Your task to perform on an android device: Go to Maps Image 0: 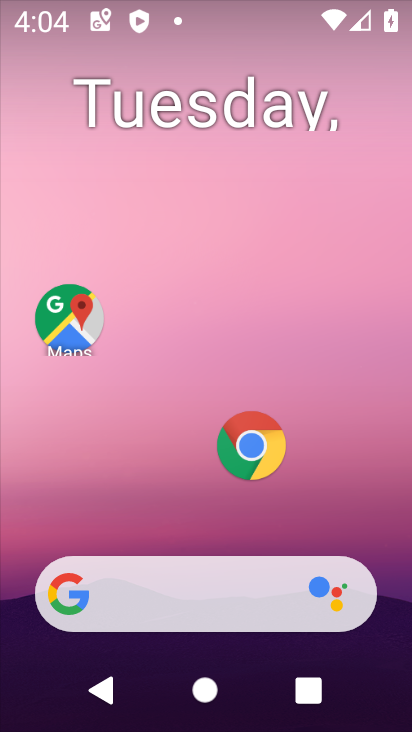
Step 0: click (74, 301)
Your task to perform on an android device: Go to Maps Image 1: 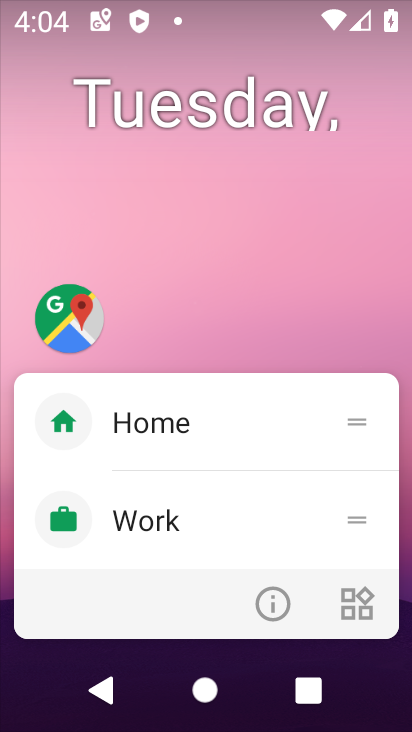
Step 1: click (91, 303)
Your task to perform on an android device: Go to Maps Image 2: 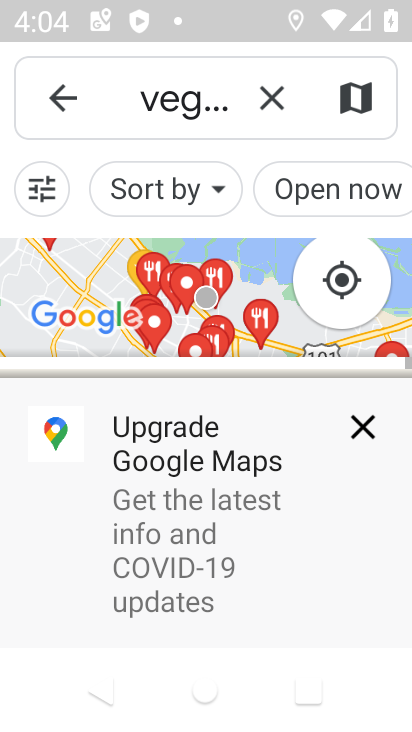
Step 2: click (83, 317)
Your task to perform on an android device: Go to Maps Image 3: 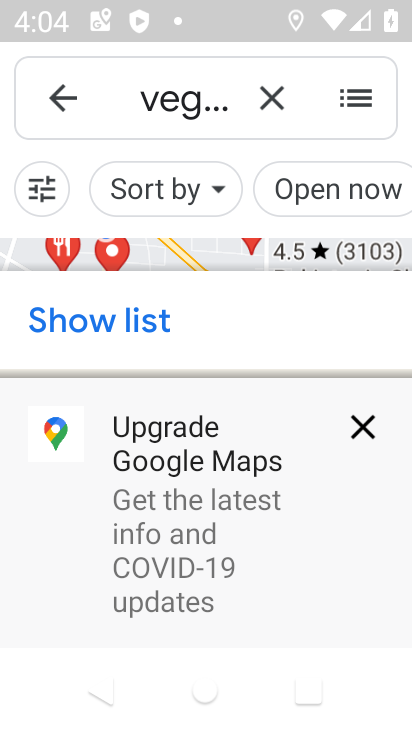
Step 3: click (362, 407)
Your task to perform on an android device: Go to Maps Image 4: 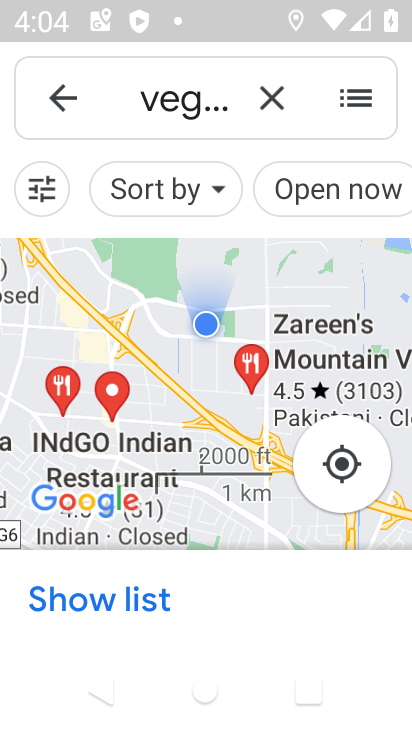
Step 4: click (66, 94)
Your task to perform on an android device: Go to Maps Image 5: 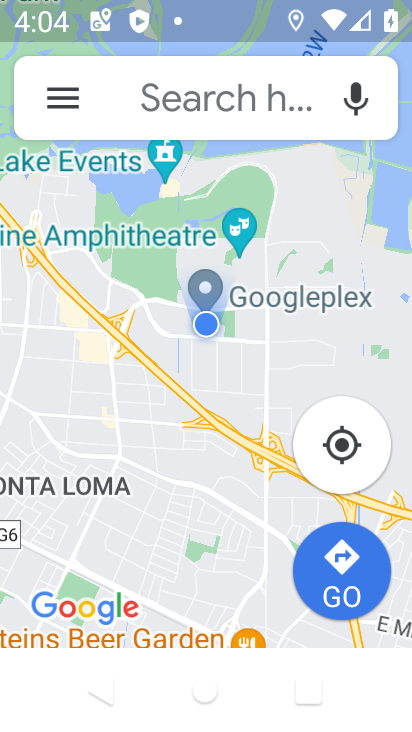
Step 5: task complete